Your task to perform on an android device: toggle improve location accuracy Image 0: 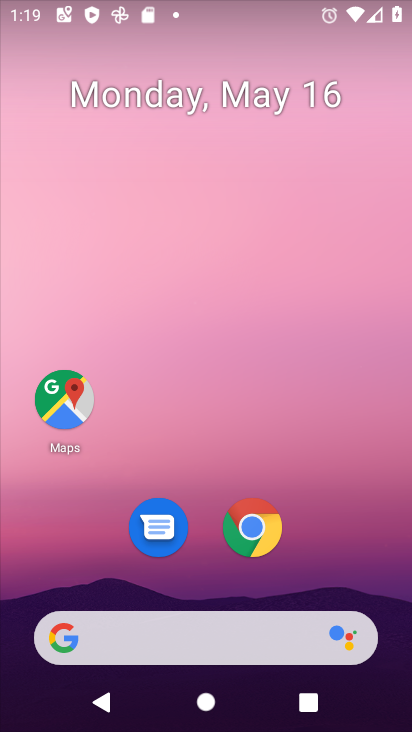
Step 0: drag from (338, 569) to (315, 54)
Your task to perform on an android device: toggle improve location accuracy Image 1: 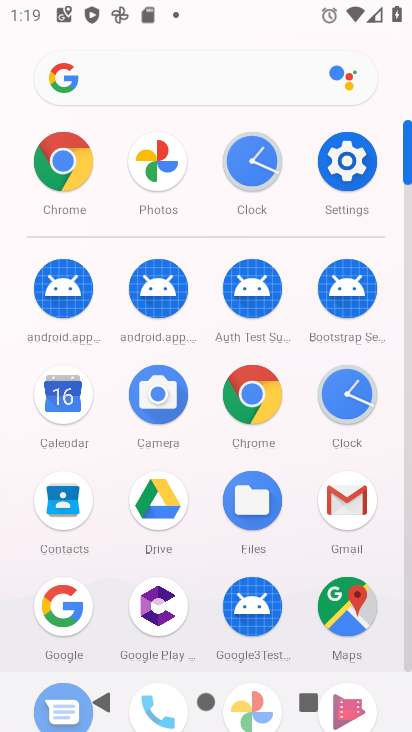
Step 1: click (341, 166)
Your task to perform on an android device: toggle improve location accuracy Image 2: 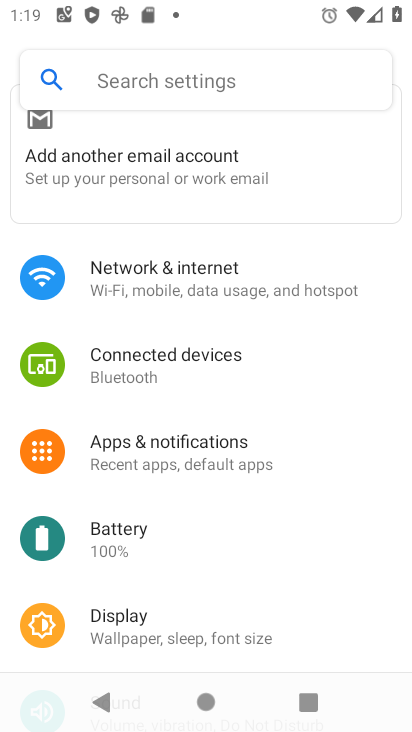
Step 2: drag from (241, 553) to (232, 262)
Your task to perform on an android device: toggle improve location accuracy Image 3: 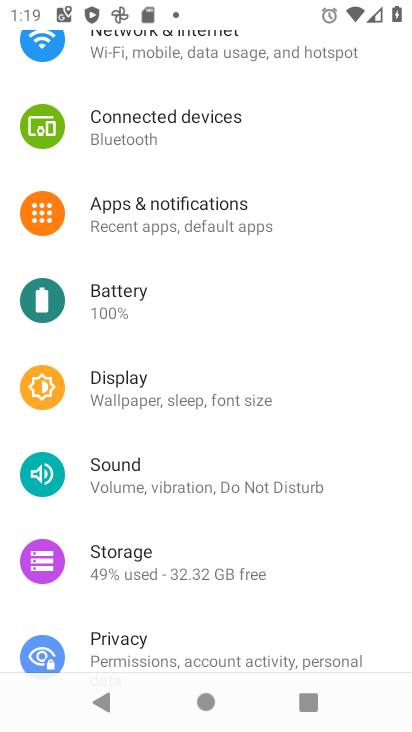
Step 3: drag from (194, 628) to (209, 332)
Your task to perform on an android device: toggle improve location accuracy Image 4: 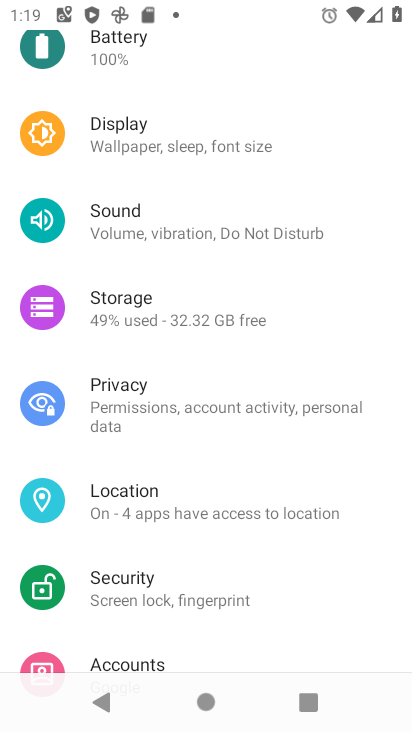
Step 4: click (207, 494)
Your task to perform on an android device: toggle improve location accuracy Image 5: 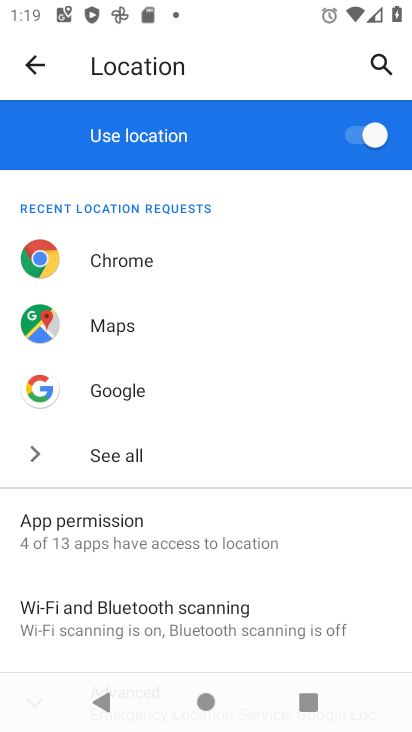
Step 5: click (185, 561)
Your task to perform on an android device: toggle improve location accuracy Image 6: 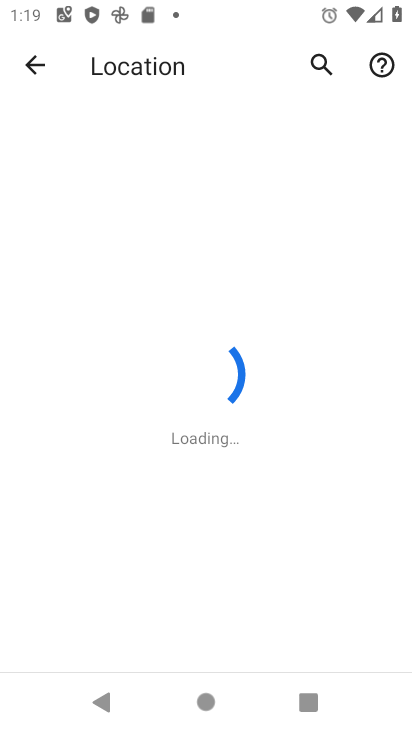
Step 6: drag from (185, 561) to (187, 290)
Your task to perform on an android device: toggle improve location accuracy Image 7: 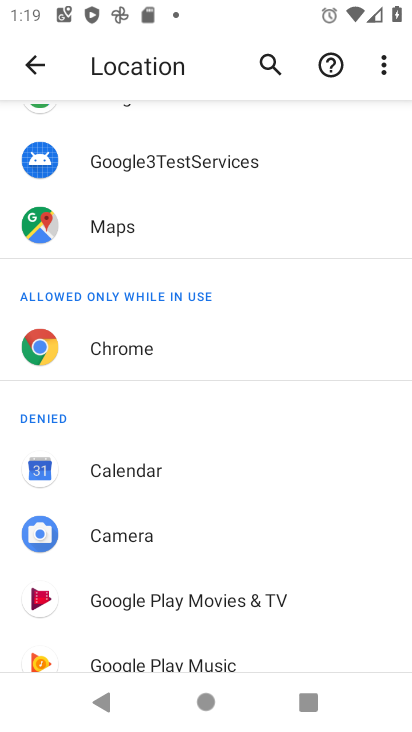
Step 7: drag from (195, 546) to (35, 0)
Your task to perform on an android device: toggle improve location accuracy Image 8: 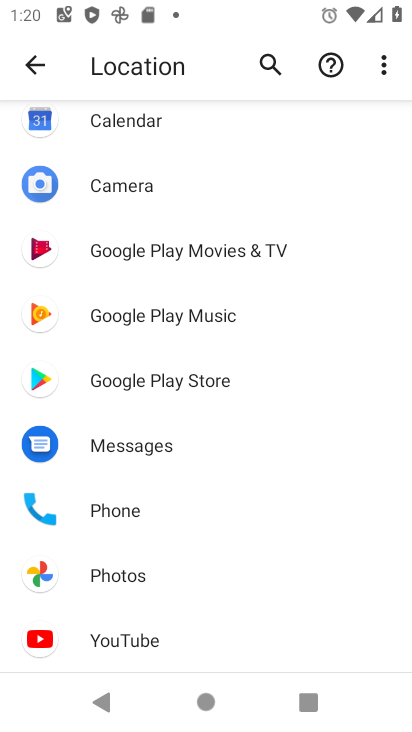
Step 8: click (23, 60)
Your task to perform on an android device: toggle improve location accuracy Image 9: 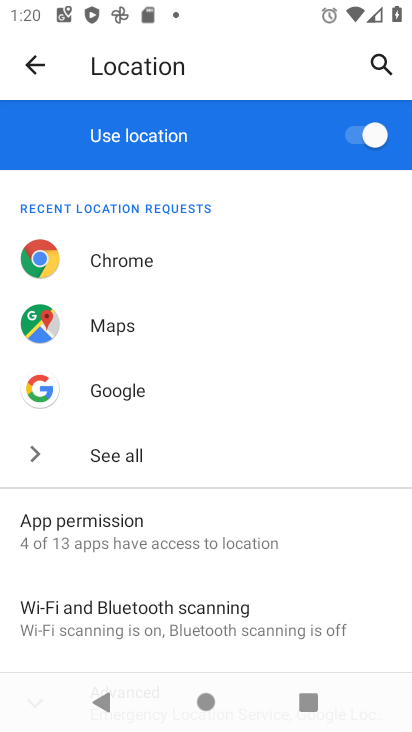
Step 9: drag from (158, 525) to (246, 212)
Your task to perform on an android device: toggle improve location accuracy Image 10: 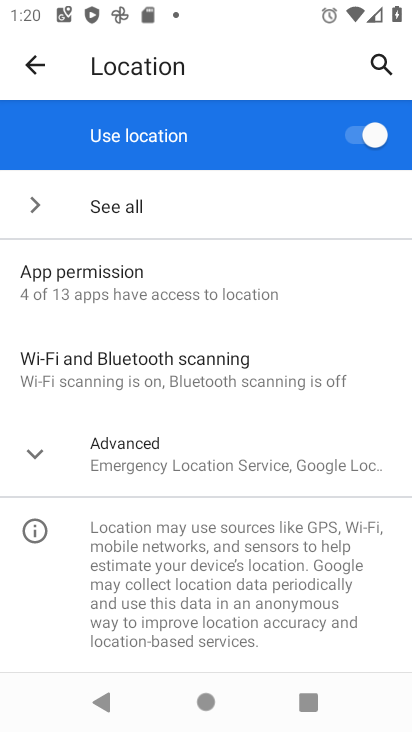
Step 10: click (243, 450)
Your task to perform on an android device: toggle improve location accuracy Image 11: 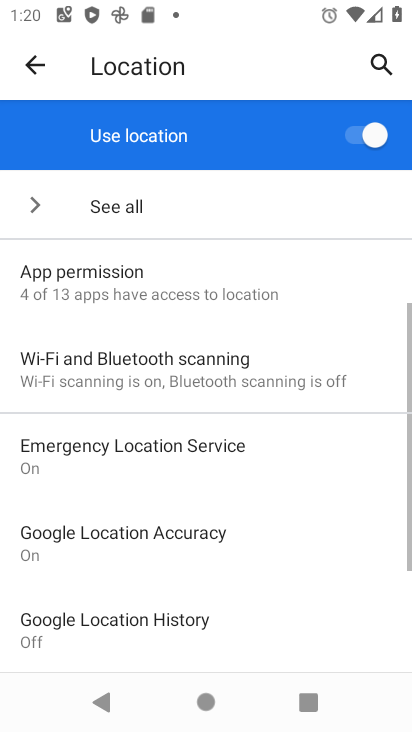
Step 11: drag from (222, 589) to (244, 396)
Your task to perform on an android device: toggle improve location accuracy Image 12: 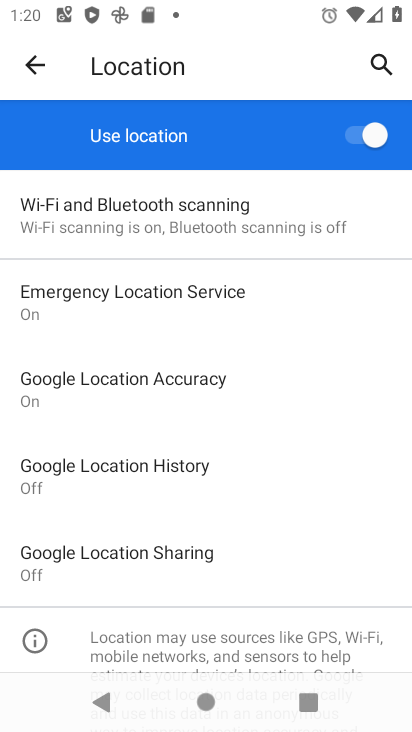
Step 12: click (241, 412)
Your task to perform on an android device: toggle improve location accuracy Image 13: 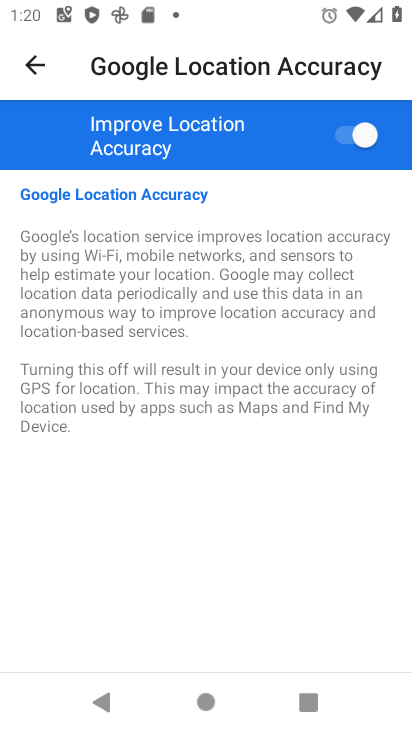
Step 13: click (334, 150)
Your task to perform on an android device: toggle improve location accuracy Image 14: 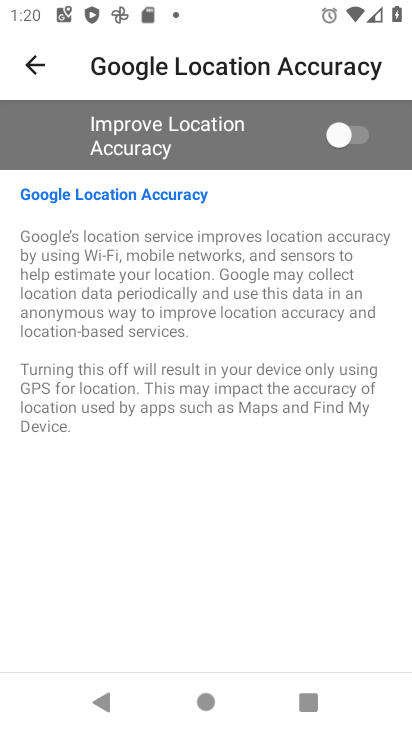
Step 14: task complete